Your task to perform on an android device: Open privacy settings Image 0: 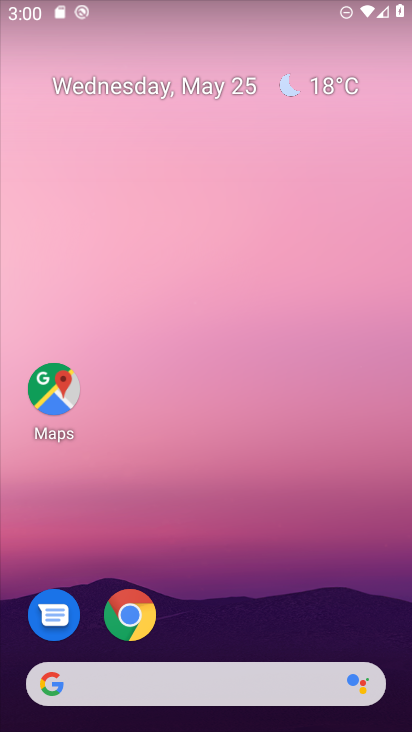
Step 0: drag from (308, 557) to (291, 93)
Your task to perform on an android device: Open privacy settings Image 1: 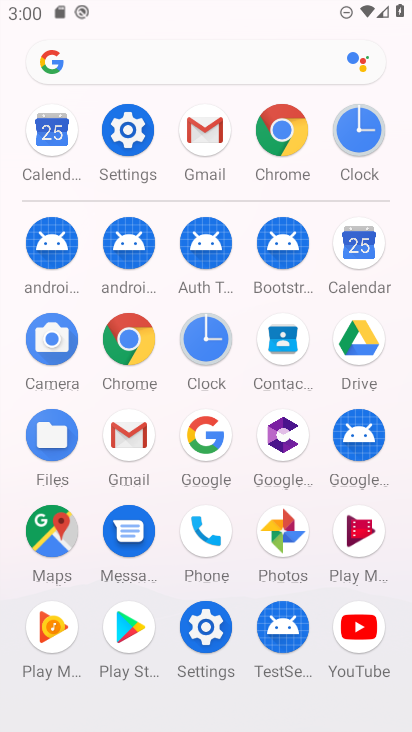
Step 1: click (127, 136)
Your task to perform on an android device: Open privacy settings Image 2: 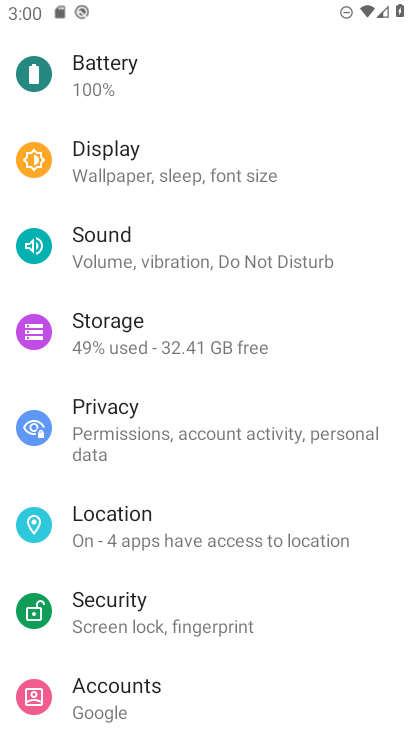
Step 2: click (143, 417)
Your task to perform on an android device: Open privacy settings Image 3: 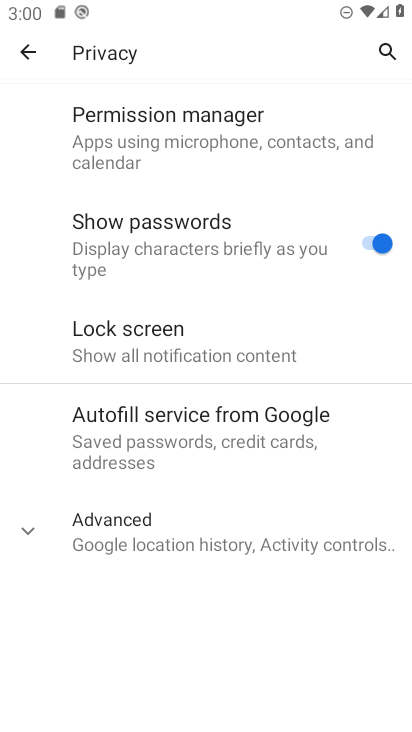
Step 3: task complete